Your task to perform on an android device: What's the weather going to be tomorrow? Image 0: 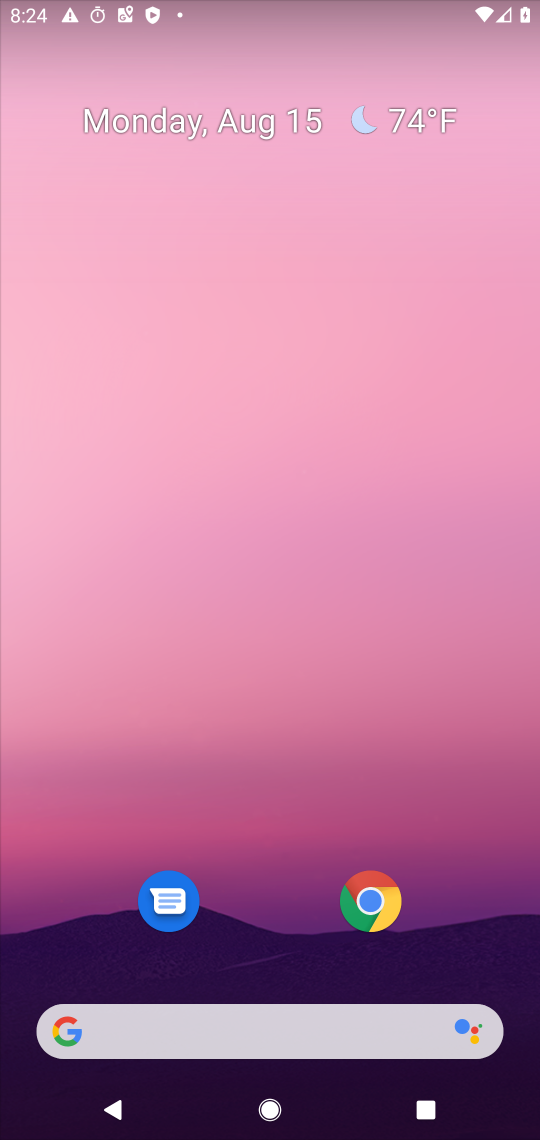
Step 0: click (389, 130)
Your task to perform on an android device: What's the weather going to be tomorrow? Image 1: 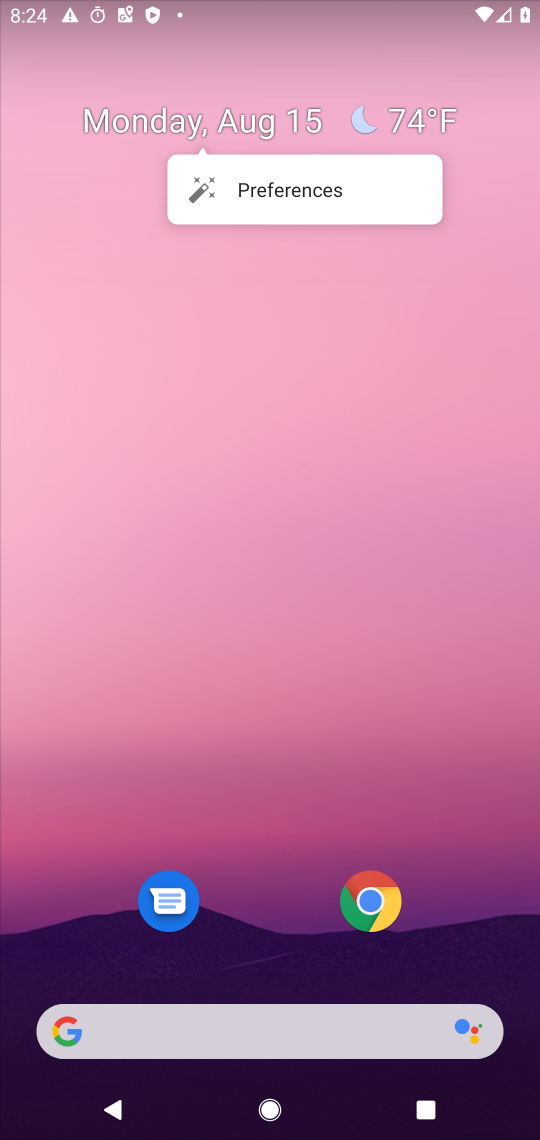
Step 1: click (419, 118)
Your task to perform on an android device: What's the weather going to be tomorrow? Image 2: 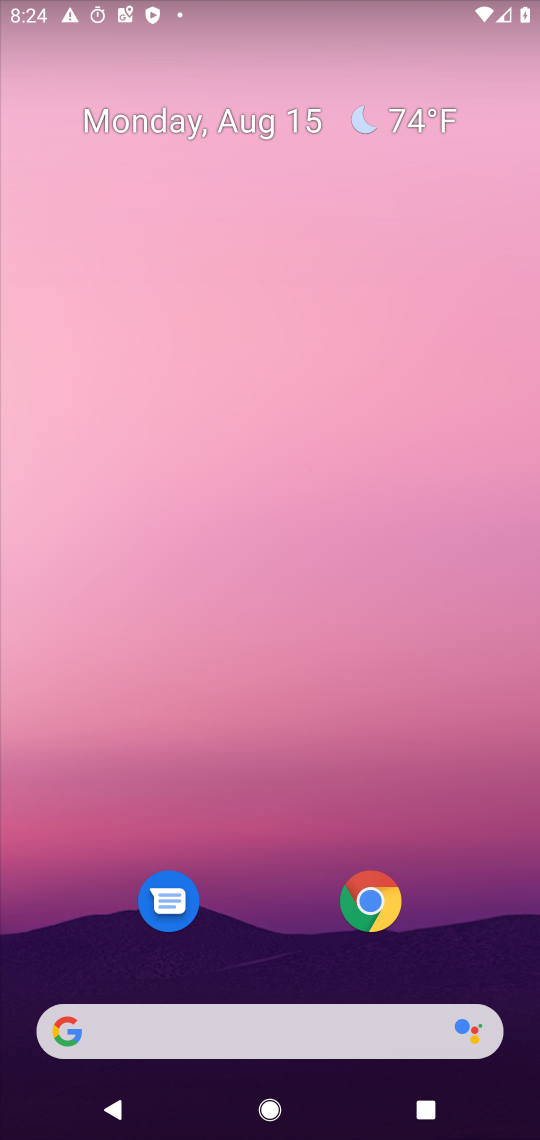
Step 2: click (419, 118)
Your task to perform on an android device: What's the weather going to be tomorrow? Image 3: 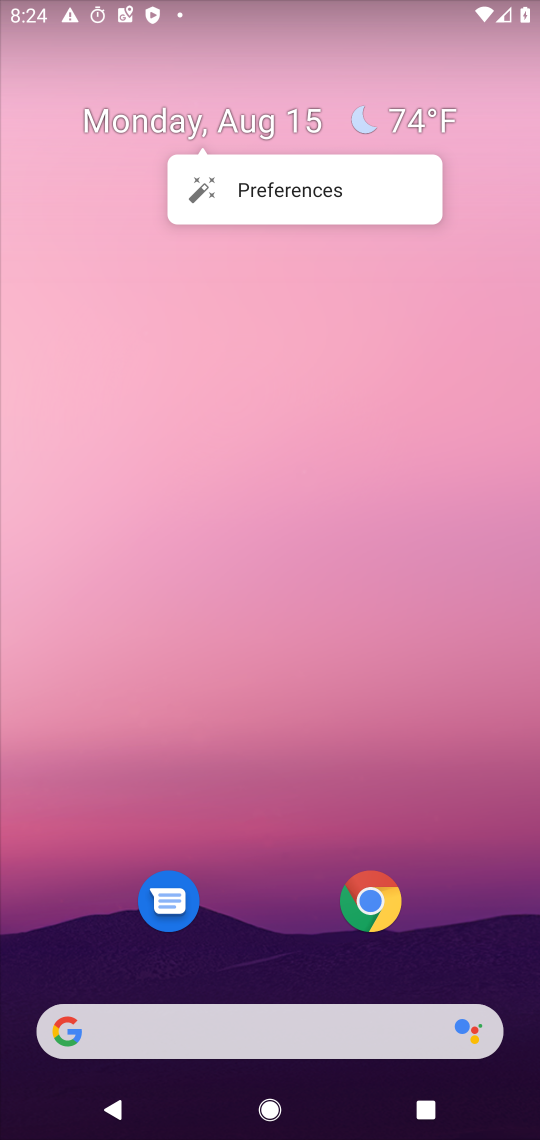
Step 3: click (419, 118)
Your task to perform on an android device: What's the weather going to be tomorrow? Image 4: 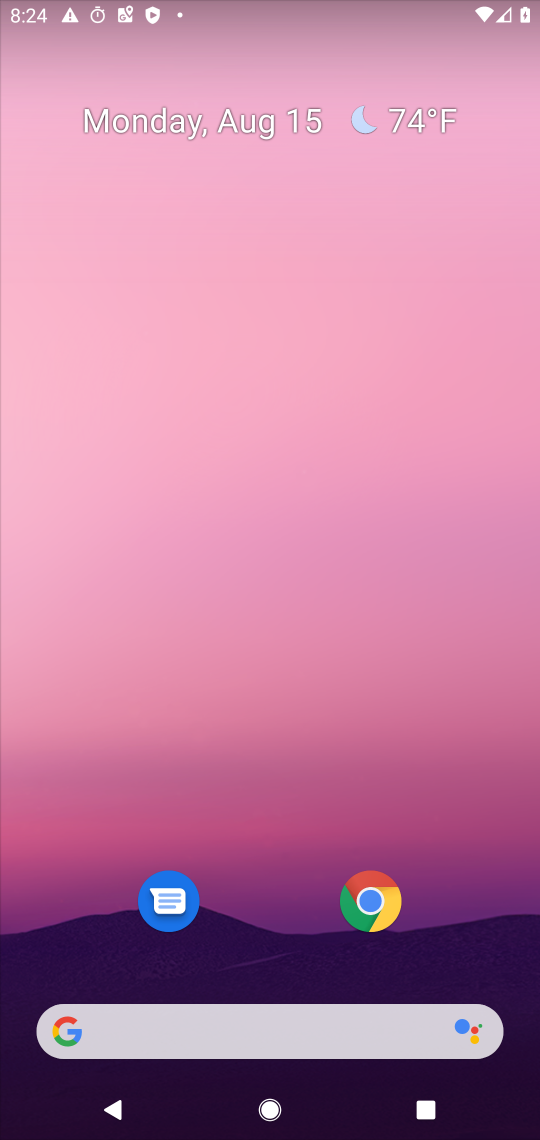
Step 4: click (419, 118)
Your task to perform on an android device: What's the weather going to be tomorrow? Image 5: 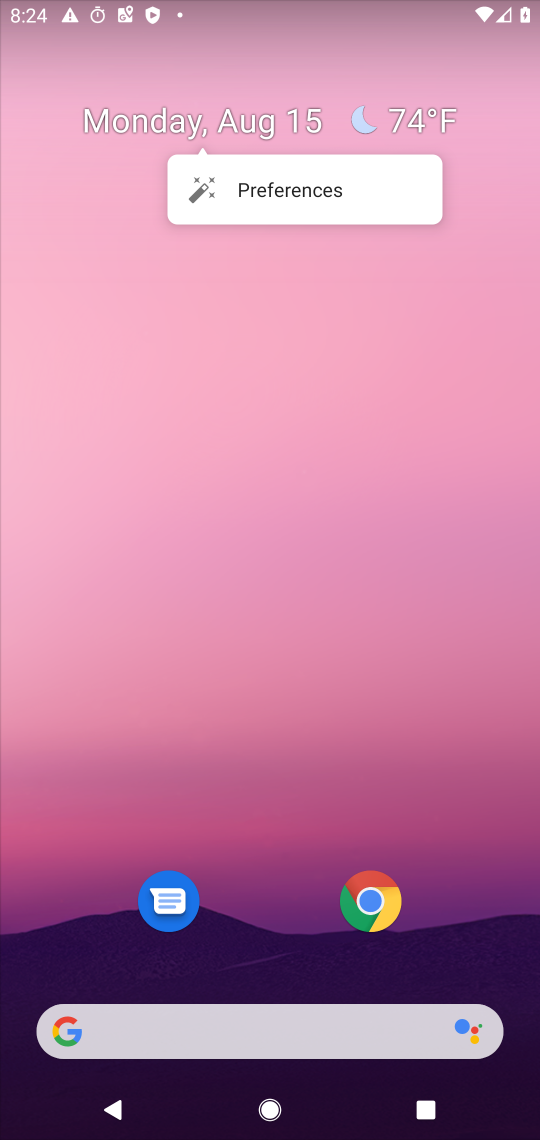
Step 5: click (399, 115)
Your task to perform on an android device: What's the weather going to be tomorrow? Image 6: 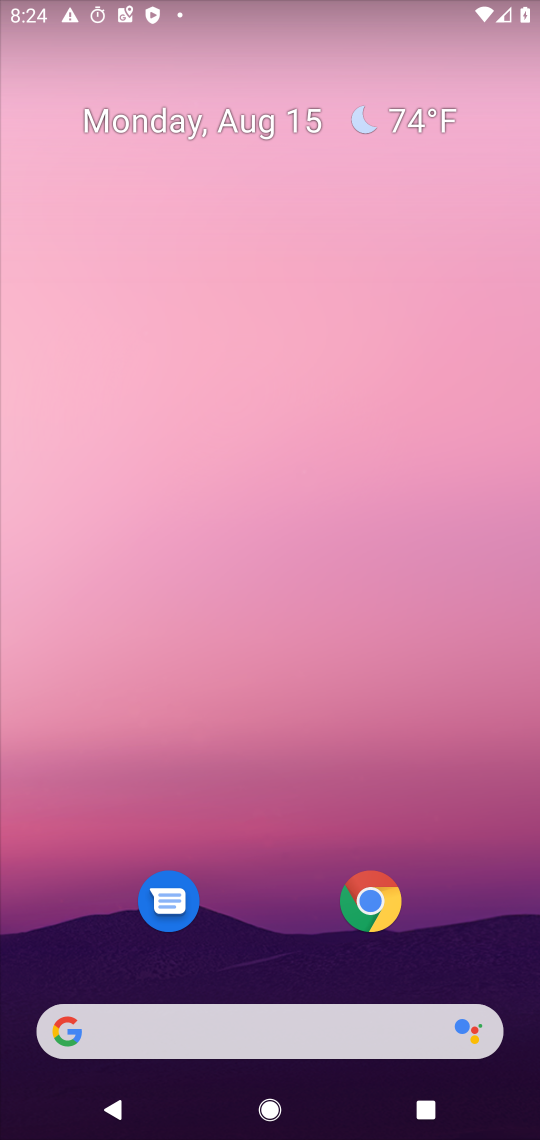
Step 6: click (430, 121)
Your task to perform on an android device: What's the weather going to be tomorrow? Image 7: 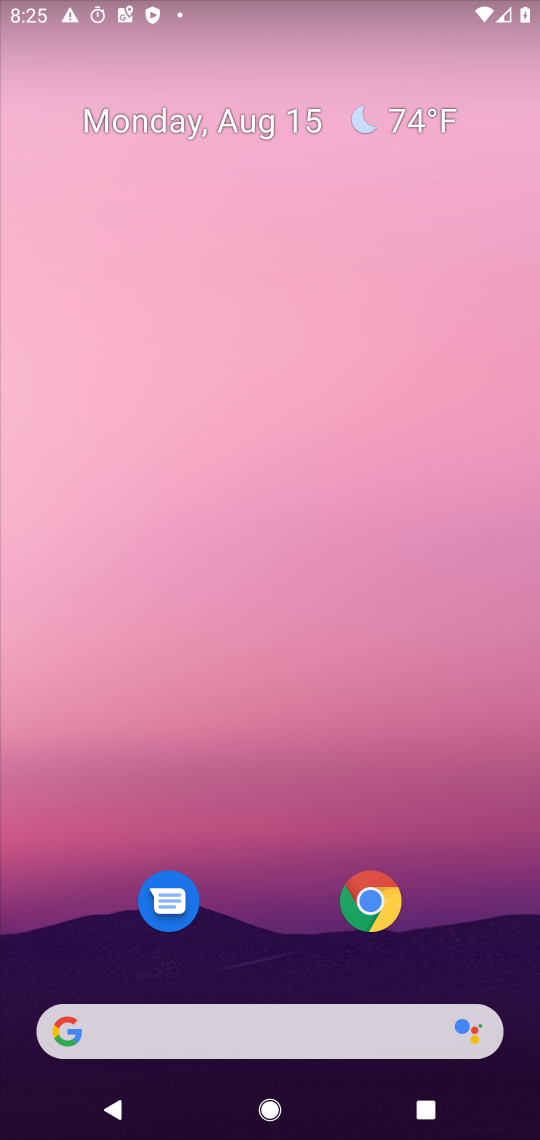
Step 7: click (427, 123)
Your task to perform on an android device: What's the weather going to be tomorrow? Image 8: 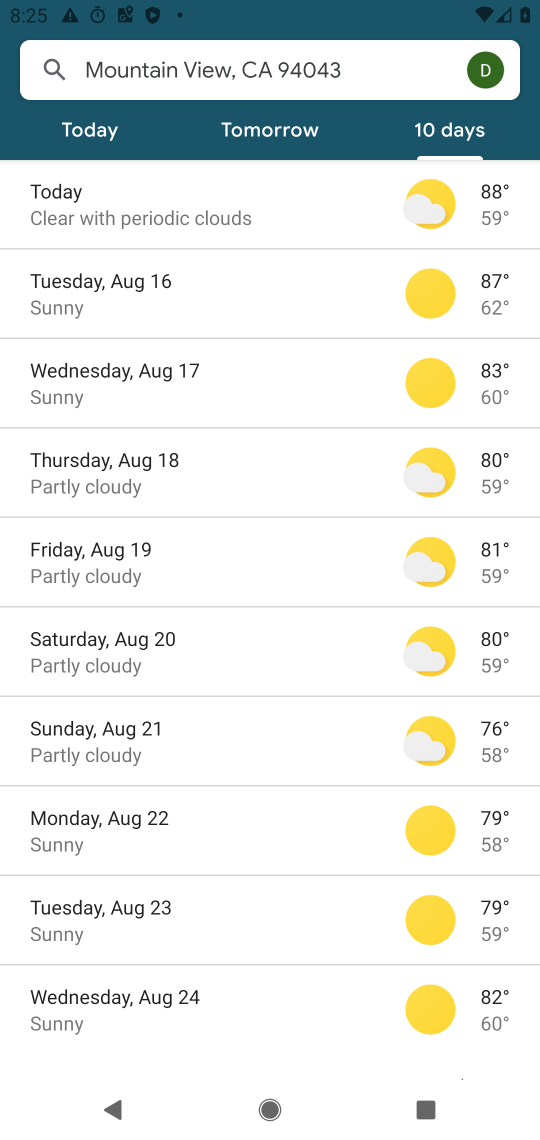
Step 8: click (263, 140)
Your task to perform on an android device: What's the weather going to be tomorrow? Image 9: 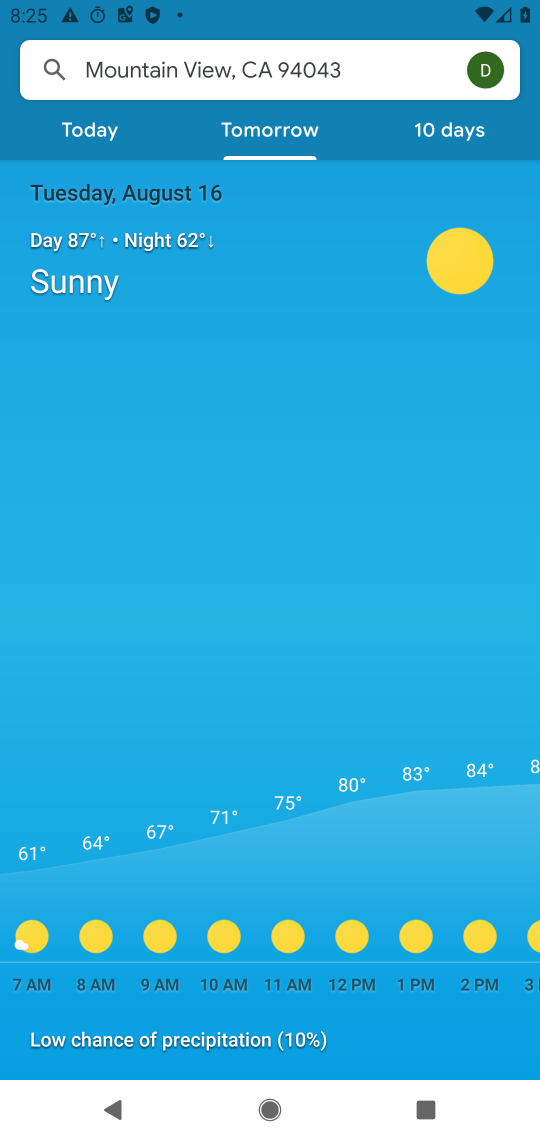
Step 9: task complete